Your task to perform on an android device: Go to Yahoo.com Image 0: 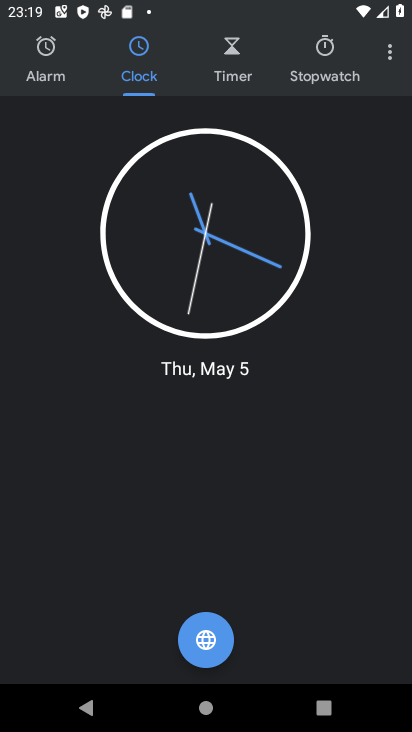
Step 0: press home button
Your task to perform on an android device: Go to Yahoo.com Image 1: 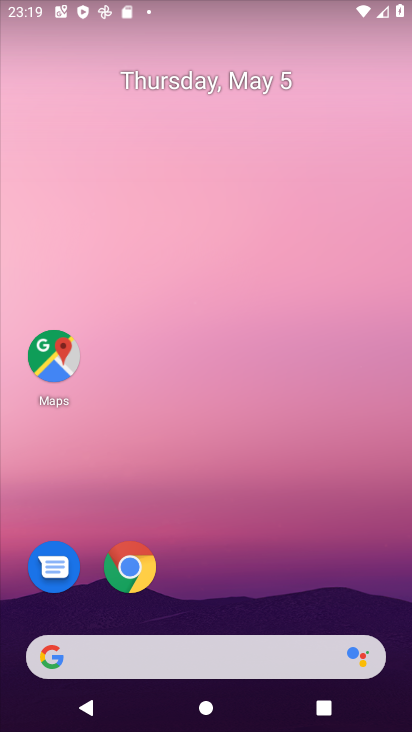
Step 1: click (132, 556)
Your task to perform on an android device: Go to Yahoo.com Image 2: 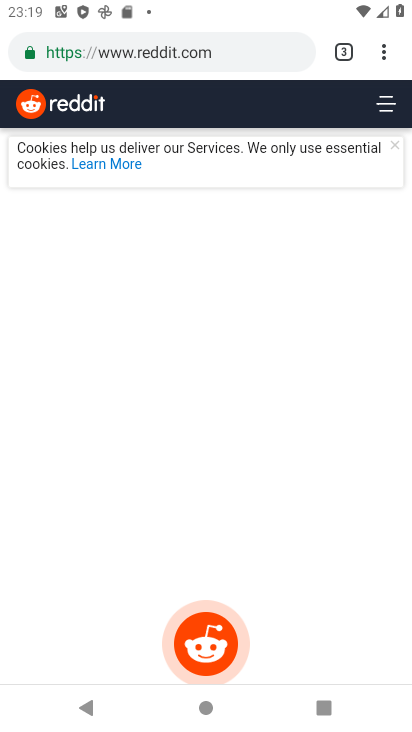
Step 2: click (379, 50)
Your task to perform on an android device: Go to Yahoo.com Image 3: 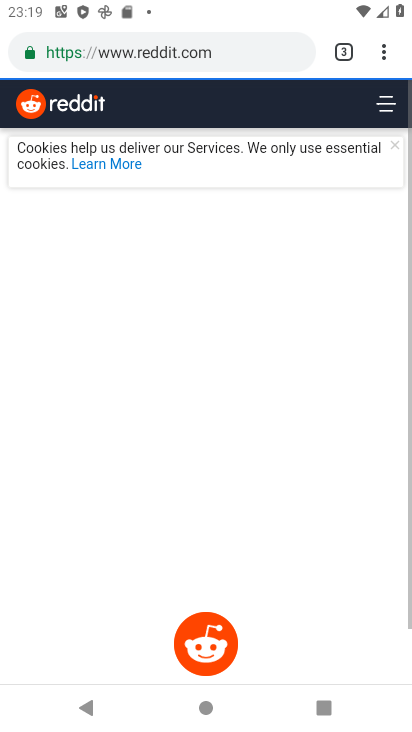
Step 3: click (388, 43)
Your task to perform on an android device: Go to Yahoo.com Image 4: 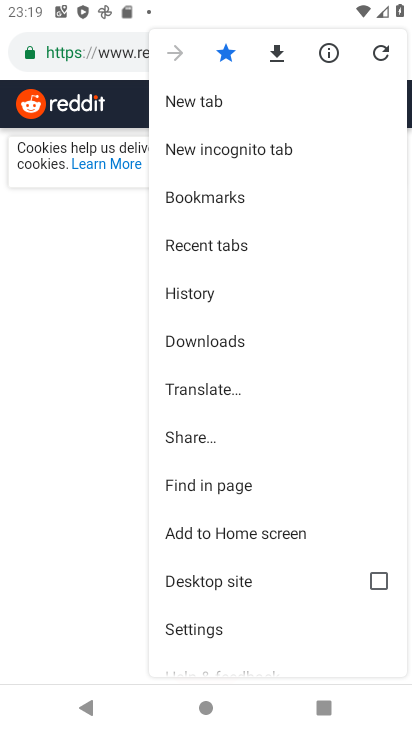
Step 4: click (74, 421)
Your task to perform on an android device: Go to Yahoo.com Image 5: 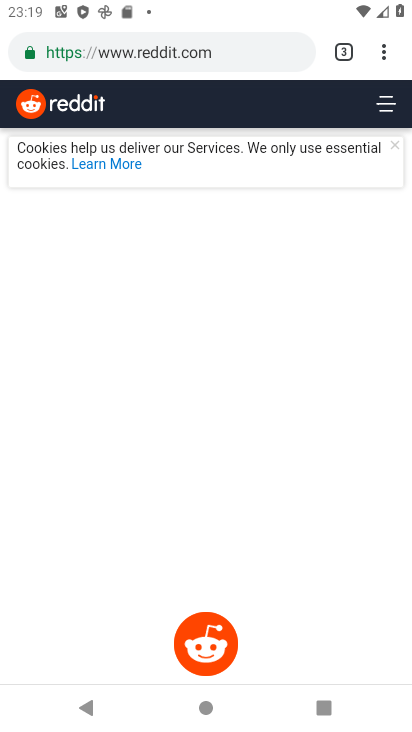
Step 5: click (337, 44)
Your task to perform on an android device: Go to Yahoo.com Image 6: 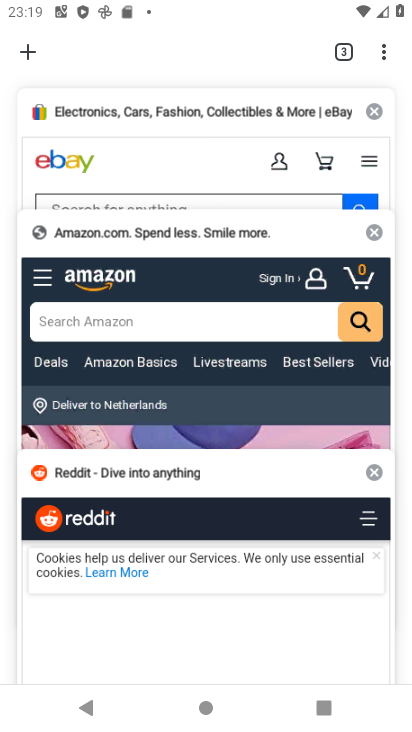
Step 6: click (31, 55)
Your task to perform on an android device: Go to Yahoo.com Image 7: 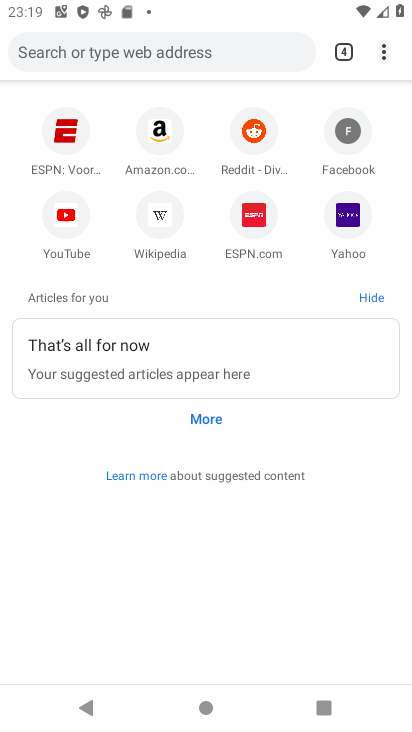
Step 7: click (340, 230)
Your task to perform on an android device: Go to Yahoo.com Image 8: 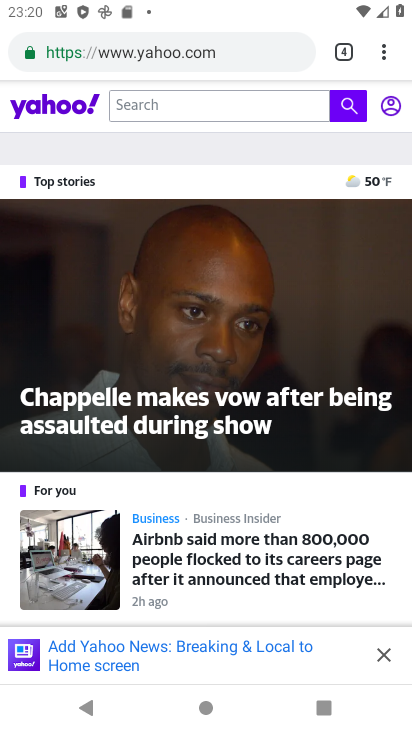
Step 8: task complete